Your task to perform on an android device: Open Youtube and go to the subscriptions tab Image 0: 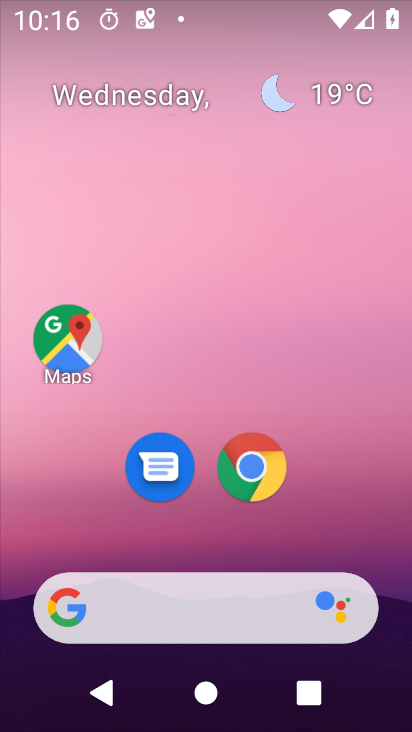
Step 0: drag from (315, 545) to (220, 93)
Your task to perform on an android device: Open Youtube and go to the subscriptions tab Image 1: 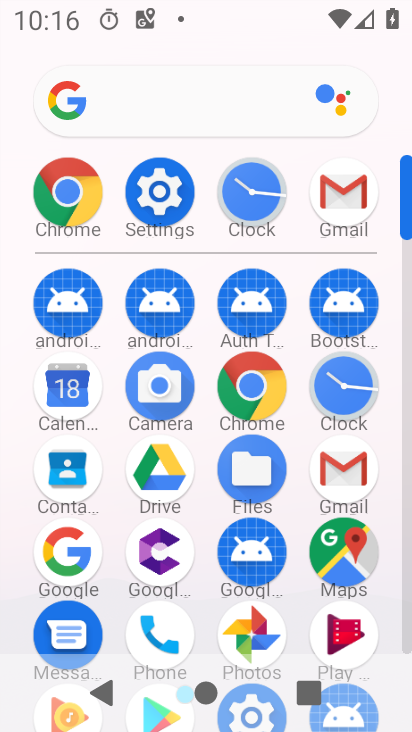
Step 1: drag from (304, 606) to (212, 178)
Your task to perform on an android device: Open Youtube and go to the subscriptions tab Image 2: 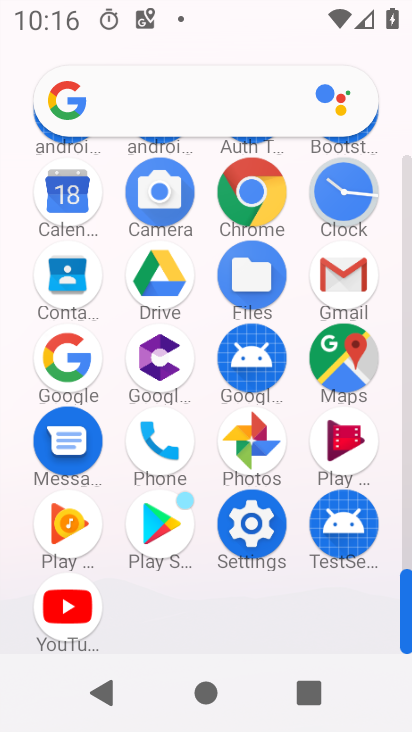
Step 2: click (61, 600)
Your task to perform on an android device: Open Youtube and go to the subscriptions tab Image 3: 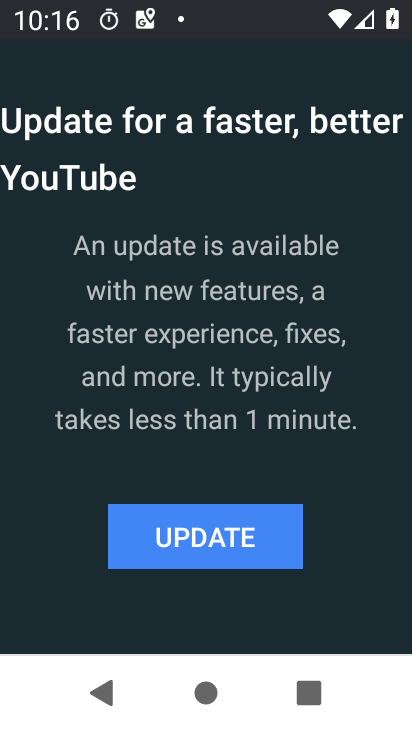
Step 3: click (238, 537)
Your task to perform on an android device: Open Youtube and go to the subscriptions tab Image 4: 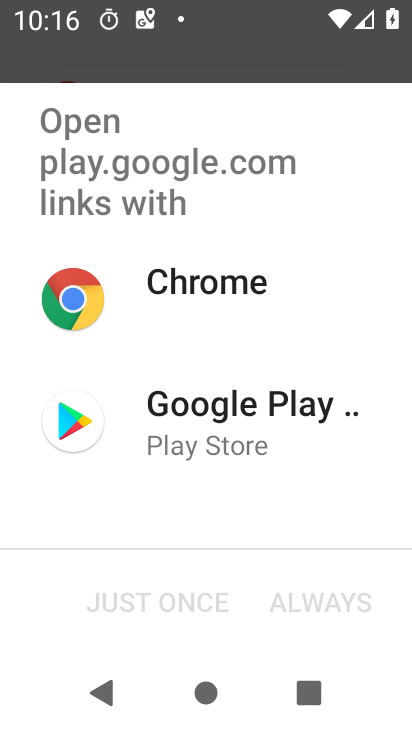
Step 4: click (184, 404)
Your task to perform on an android device: Open Youtube and go to the subscriptions tab Image 5: 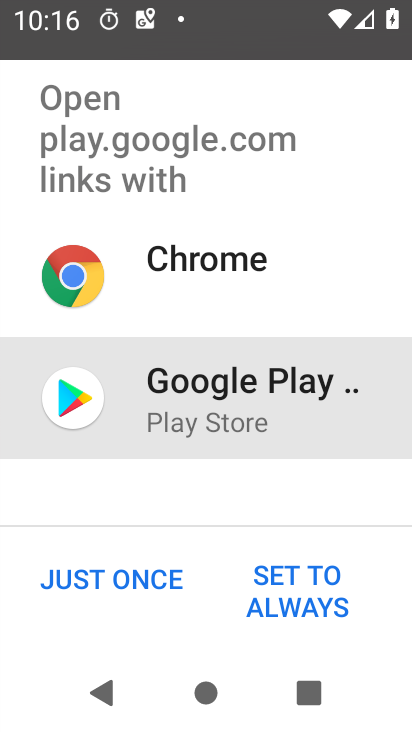
Step 5: click (132, 577)
Your task to perform on an android device: Open Youtube and go to the subscriptions tab Image 6: 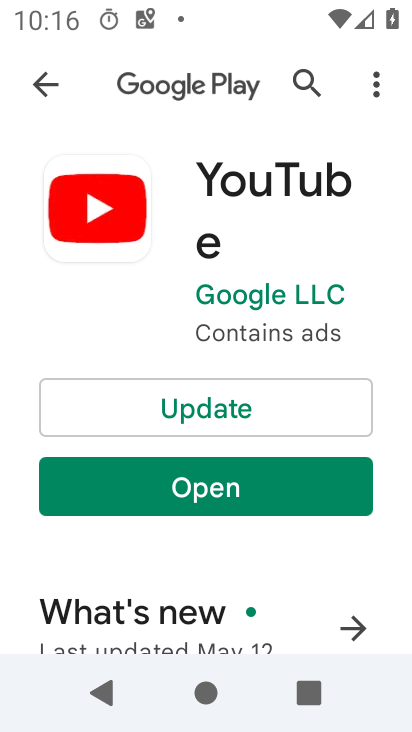
Step 6: click (247, 405)
Your task to perform on an android device: Open Youtube and go to the subscriptions tab Image 7: 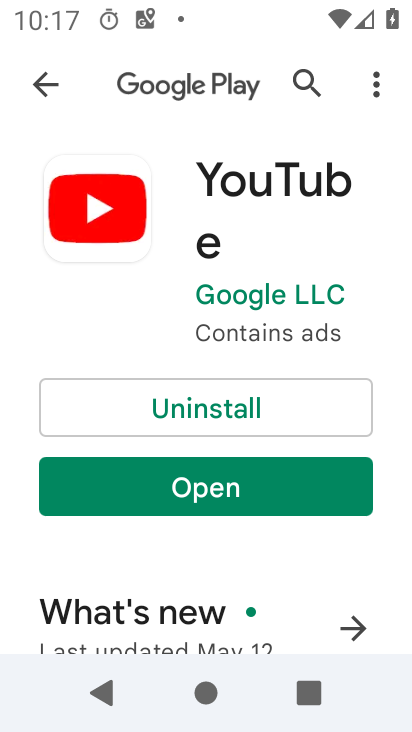
Step 7: click (244, 482)
Your task to perform on an android device: Open Youtube and go to the subscriptions tab Image 8: 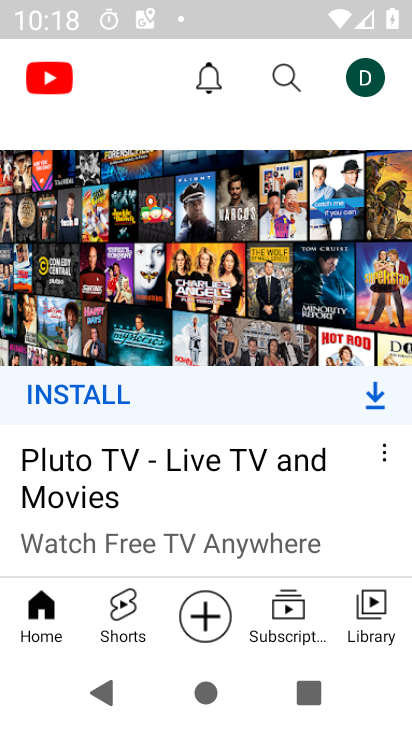
Step 8: click (285, 623)
Your task to perform on an android device: Open Youtube and go to the subscriptions tab Image 9: 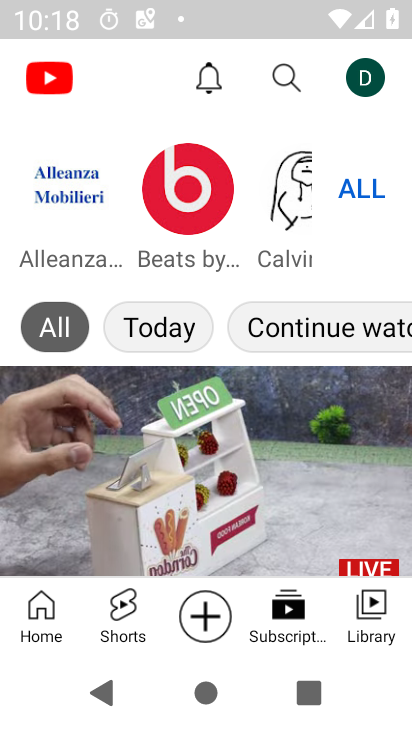
Step 9: task complete